Your task to perform on an android device: change the clock style Image 0: 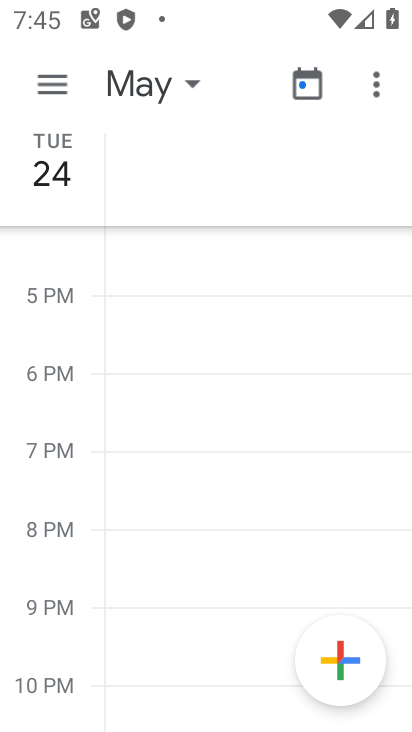
Step 0: press home button
Your task to perform on an android device: change the clock style Image 1: 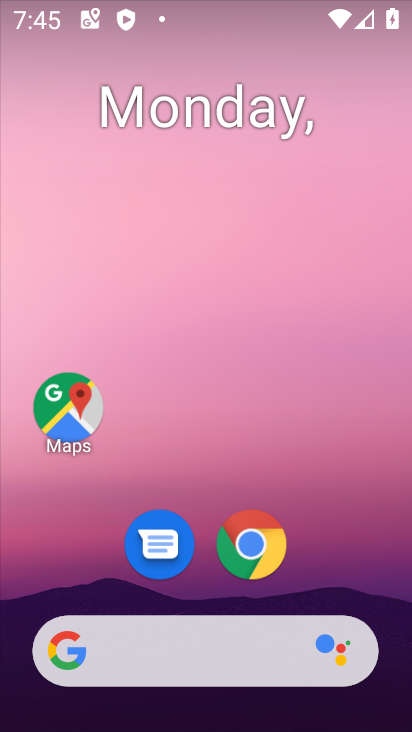
Step 1: drag from (283, 457) to (206, 19)
Your task to perform on an android device: change the clock style Image 2: 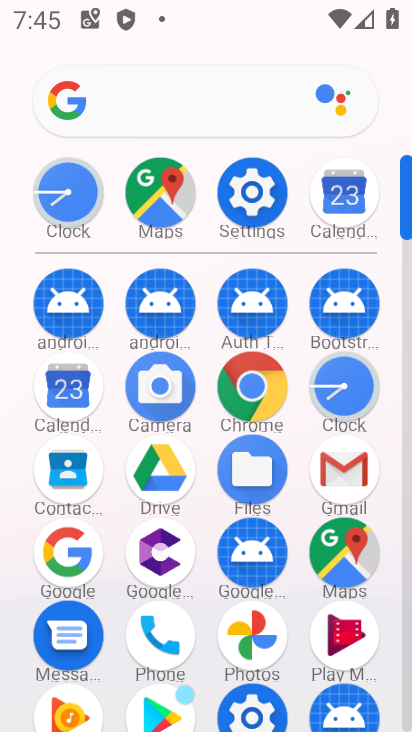
Step 2: click (52, 198)
Your task to perform on an android device: change the clock style Image 3: 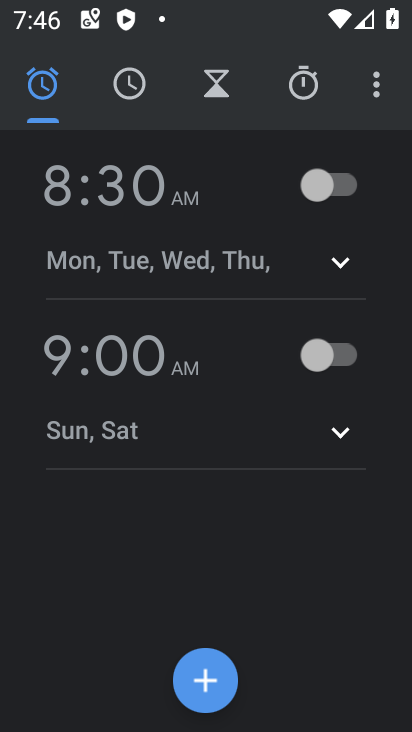
Step 3: click (381, 82)
Your task to perform on an android device: change the clock style Image 4: 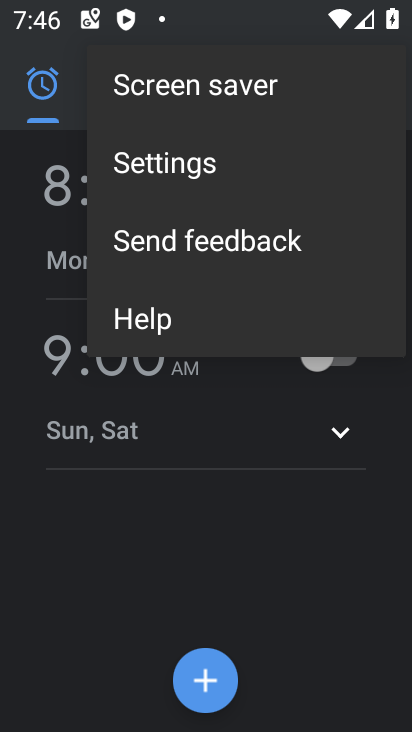
Step 4: click (200, 166)
Your task to perform on an android device: change the clock style Image 5: 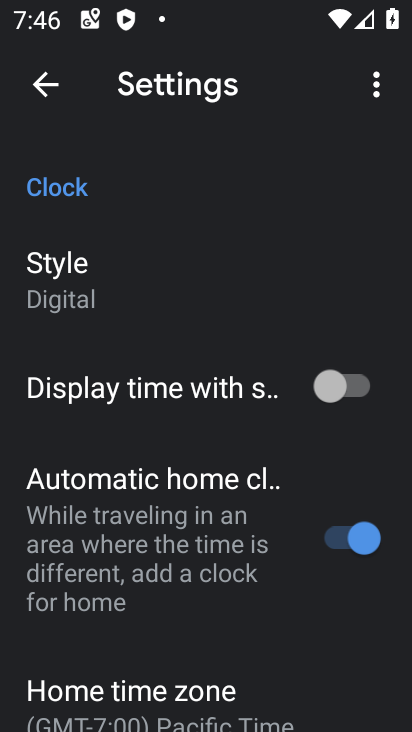
Step 5: click (58, 267)
Your task to perform on an android device: change the clock style Image 6: 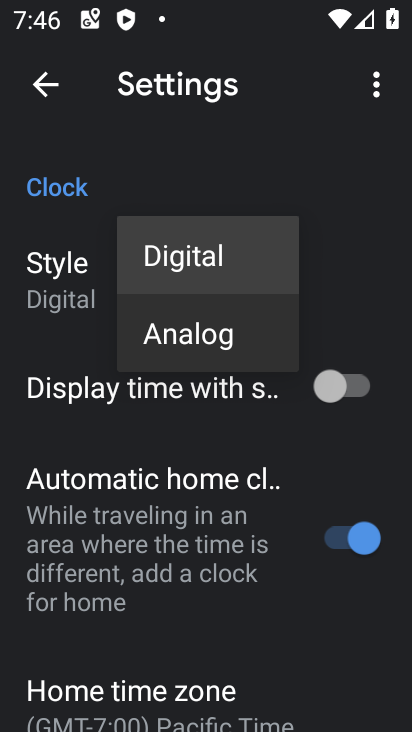
Step 6: click (193, 343)
Your task to perform on an android device: change the clock style Image 7: 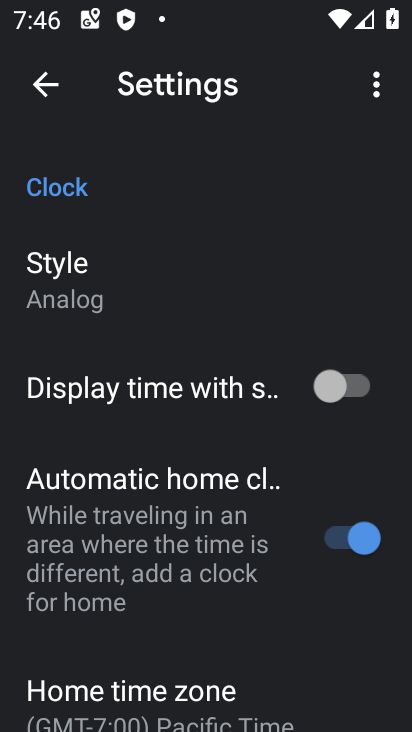
Step 7: task complete